Your task to perform on an android device: Search for "alienware aurora" on ebay, select the first entry, add it to the cart, then select checkout. Image 0: 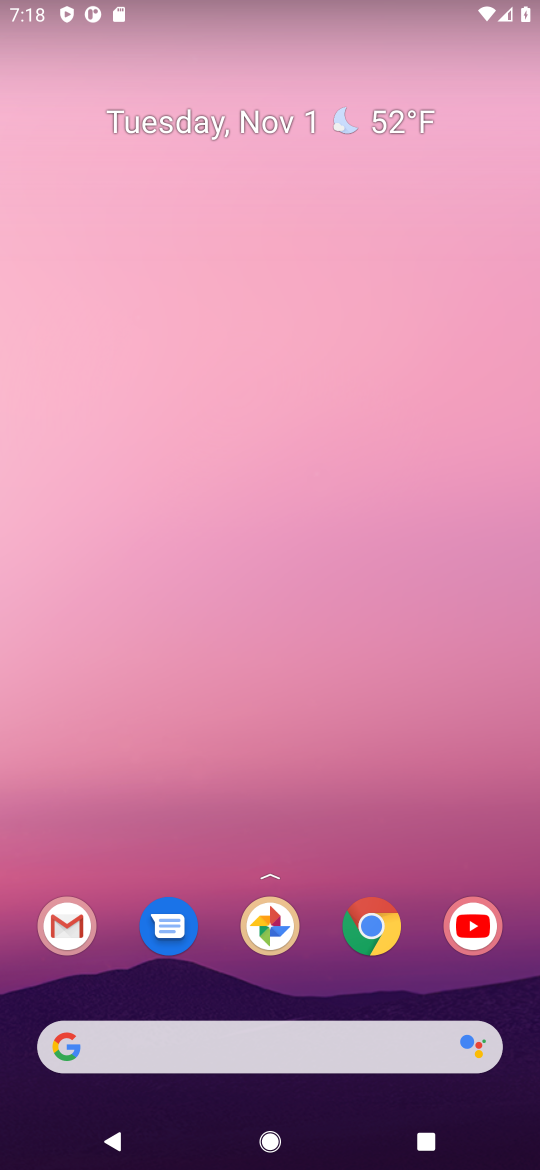
Step 0: click (374, 928)
Your task to perform on an android device: Search for "alienware aurora" on ebay, select the first entry, add it to the cart, then select checkout. Image 1: 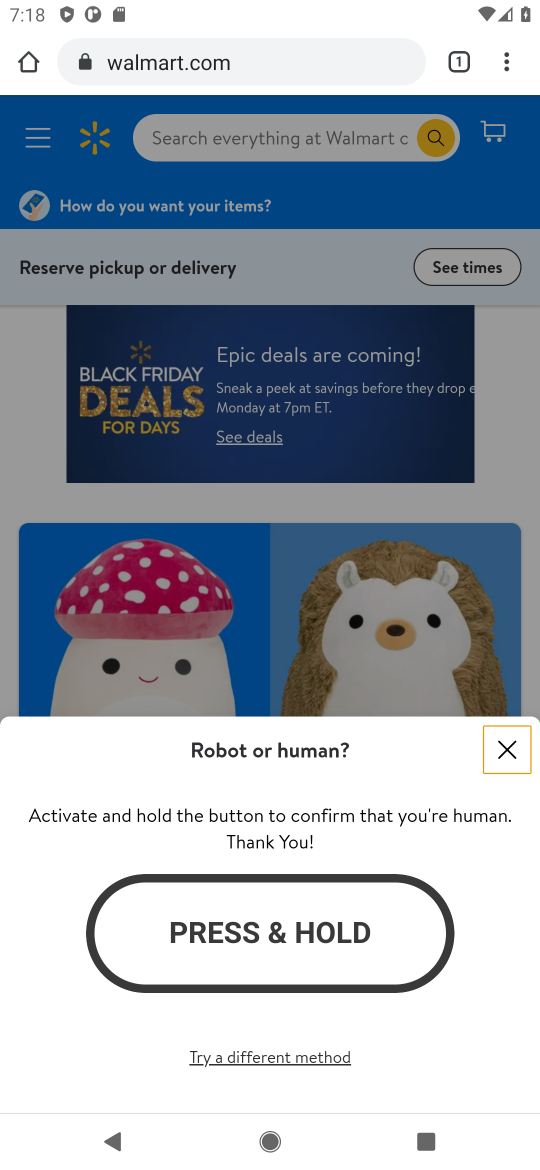
Step 1: click (198, 78)
Your task to perform on an android device: Search for "alienware aurora" on ebay, select the first entry, add it to the cart, then select checkout. Image 2: 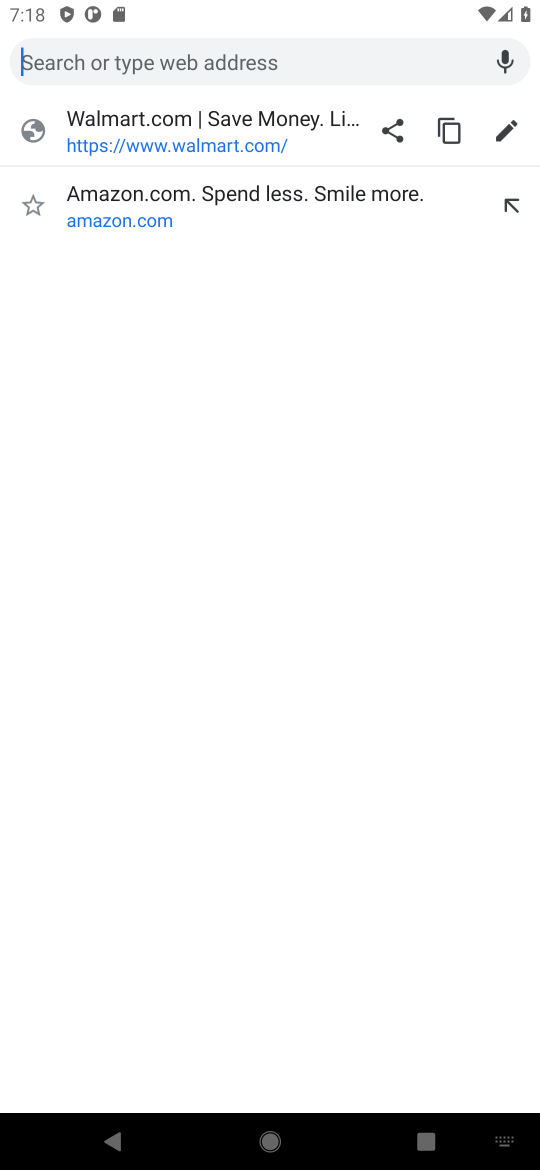
Step 2: type "ebay"
Your task to perform on an android device: Search for "alienware aurora" on ebay, select the first entry, add it to the cart, then select checkout. Image 3: 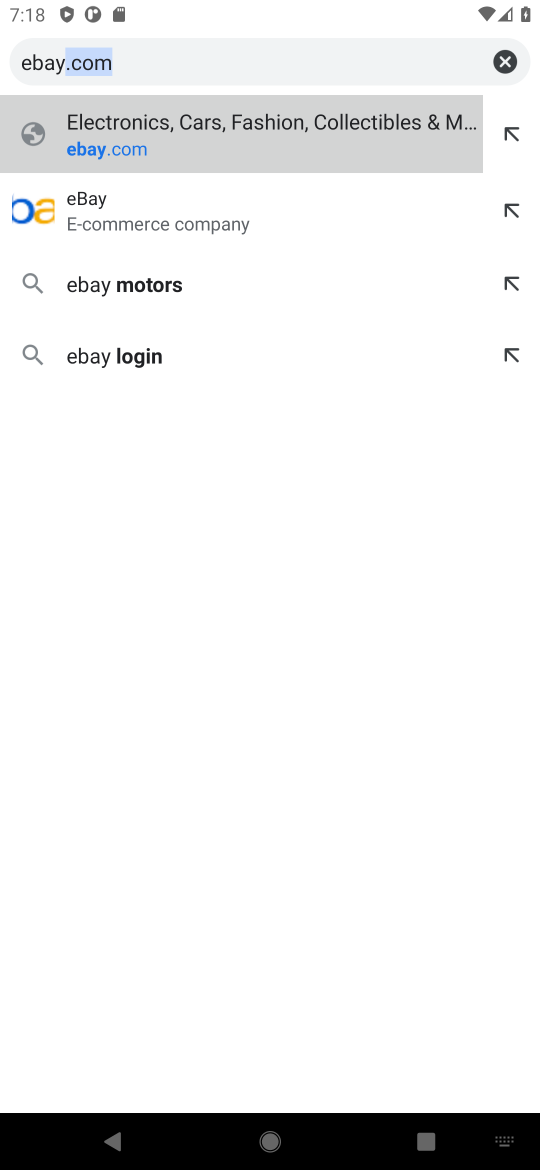
Step 3: type ""
Your task to perform on an android device: Search for "alienware aurora" on ebay, select the first entry, add it to the cart, then select checkout. Image 4: 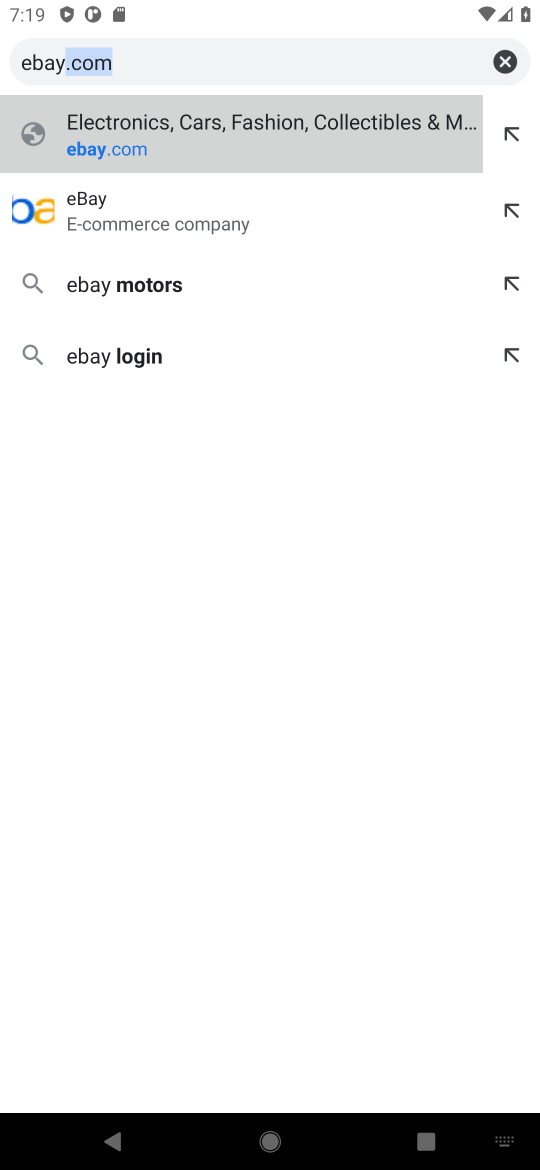
Step 4: click (137, 212)
Your task to perform on an android device: Search for "alienware aurora" on ebay, select the first entry, add it to the cart, then select checkout. Image 5: 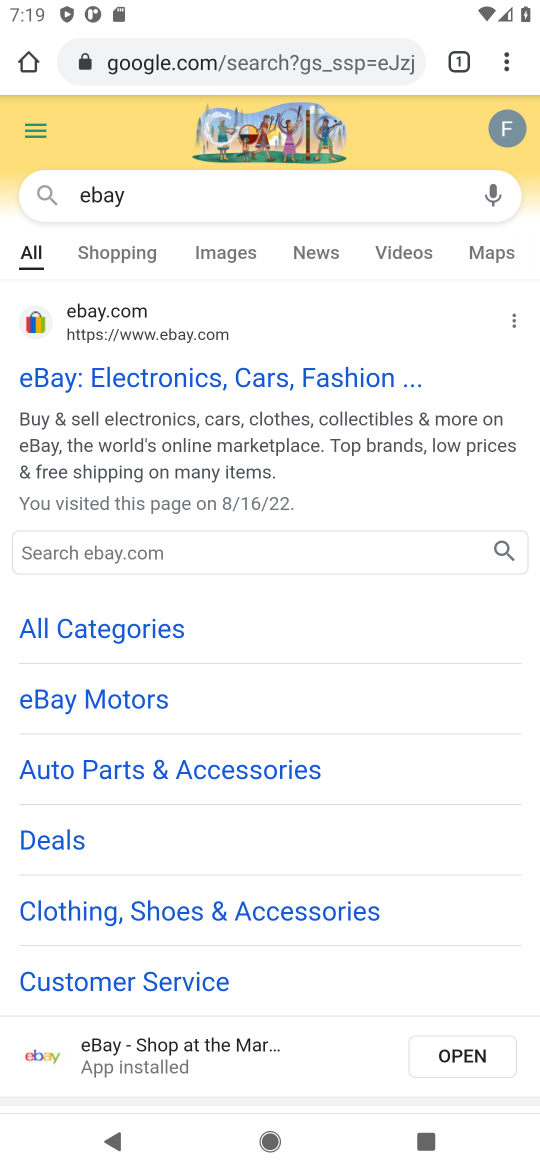
Step 5: click (186, 1044)
Your task to perform on an android device: Search for "alienware aurora" on ebay, select the first entry, add it to the cart, then select checkout. Image 6: 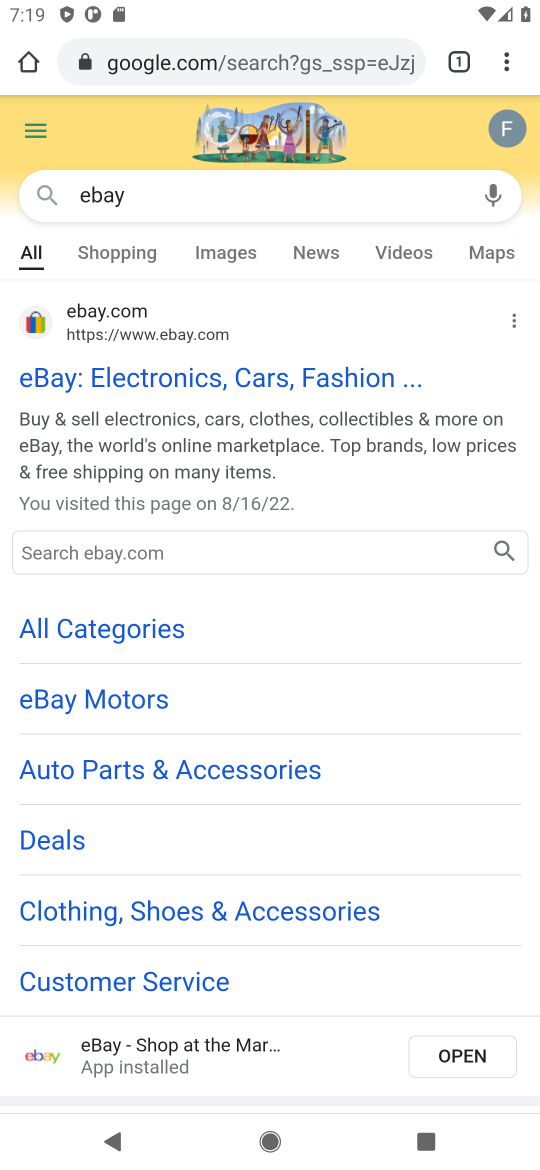
Step 6: drag from (195, 1025) to (253, 456)
Your task to perform on an android device: Search for "alienware aurora" on ebay, select the first entry, add it to the cart, then select checkout. Image 7: 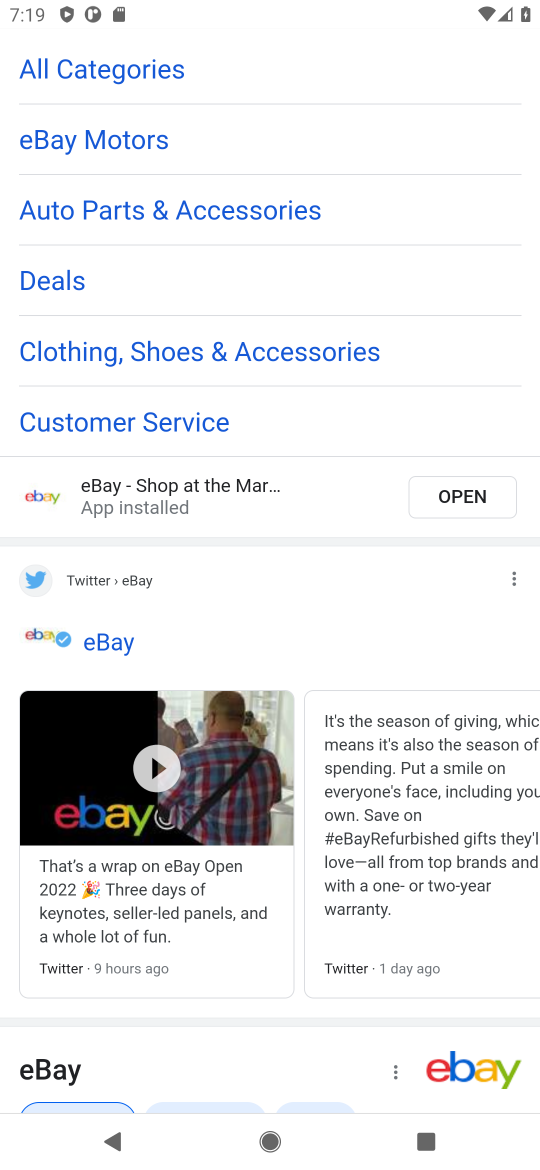
Step 7: drag from (151, 369) to (161, 975)
Your task to perform on an android device: Search for "alienware aurora" on ebay, select the first entry, add it to the cart, then select checkout. Image 8: 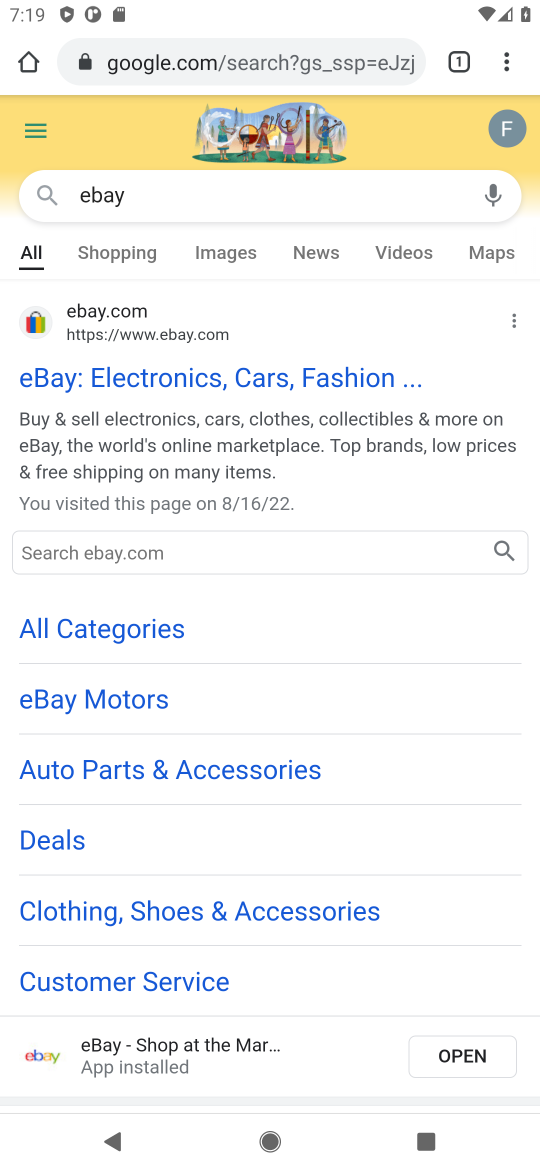
Step 8: click (133, 373)
Your task to perform on an android device: Search for "alienware aurora" on ebay, select the first entry, add it to the cart, then select checkout. Image 9: 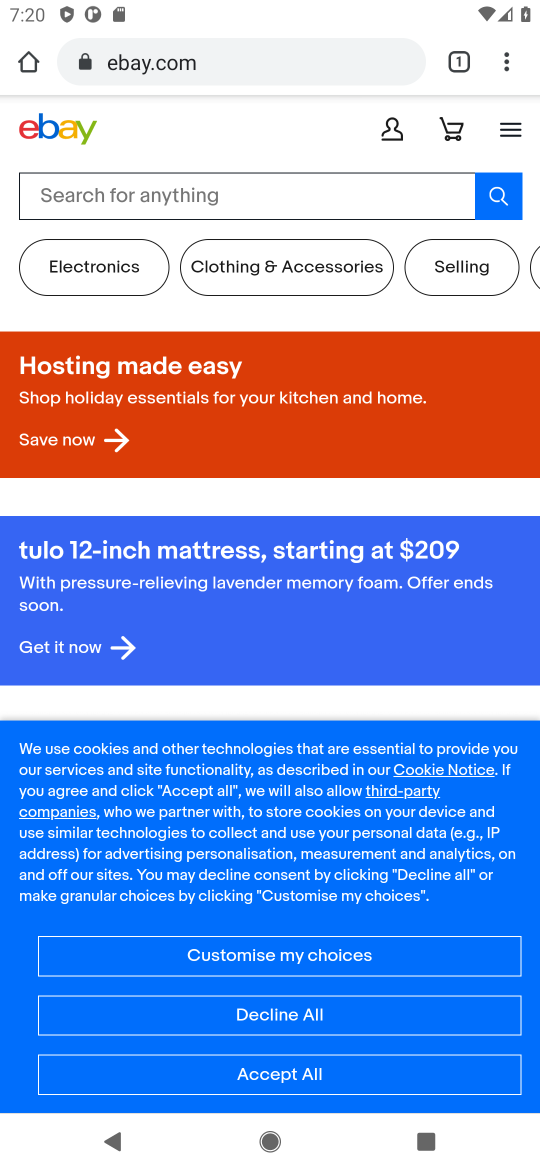
Step 9: click (106, 184)
Your task to perform on an android device: Search for "alienware aurora" on ebay, select the first entry, add it to the cart, then select checkout. Image 10: 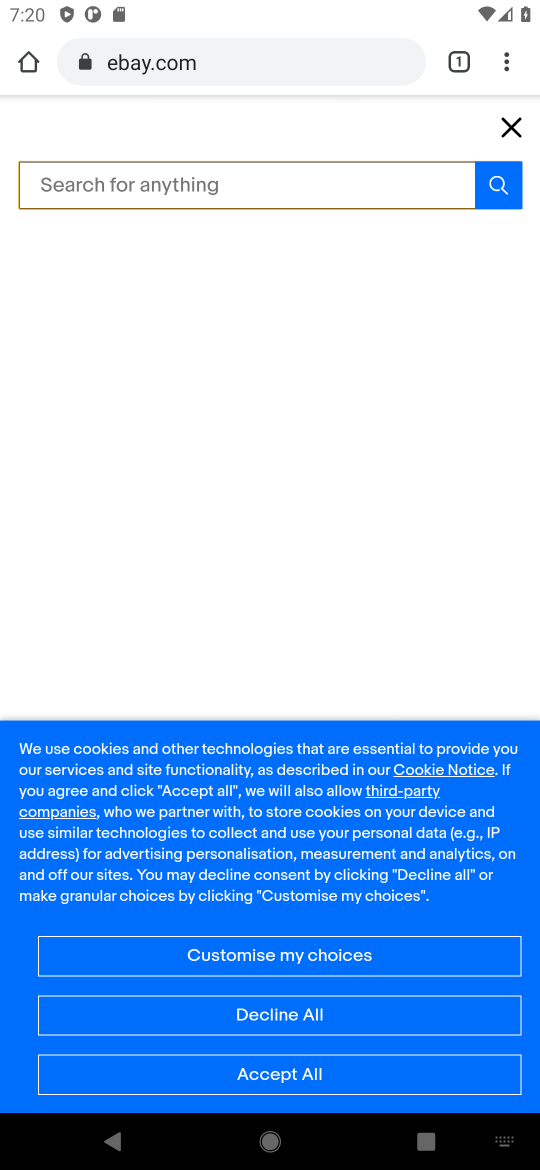
Step 10: type "alienware aurora"
Your task to perform on an android device: Search for "alienware aurora" on ebay, select the first entry, add it to the cart, then select checkout. Image 11: 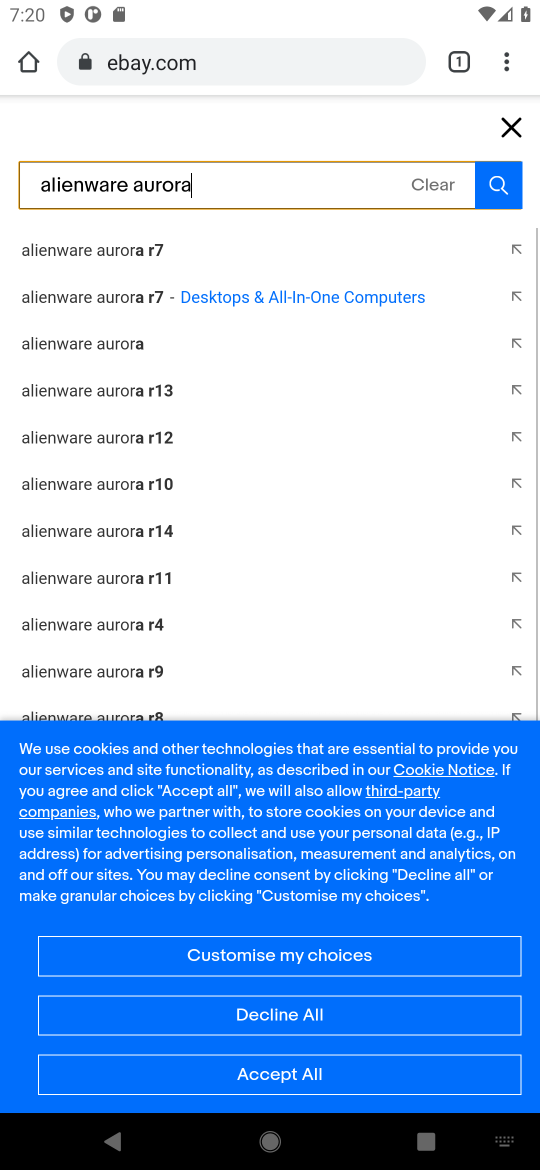
Step 11: type ""
Your task to perform on an android device: Search for "alienware aurora" on ebay, select the first entry, add it to the cart, then select checkout. Image 12: 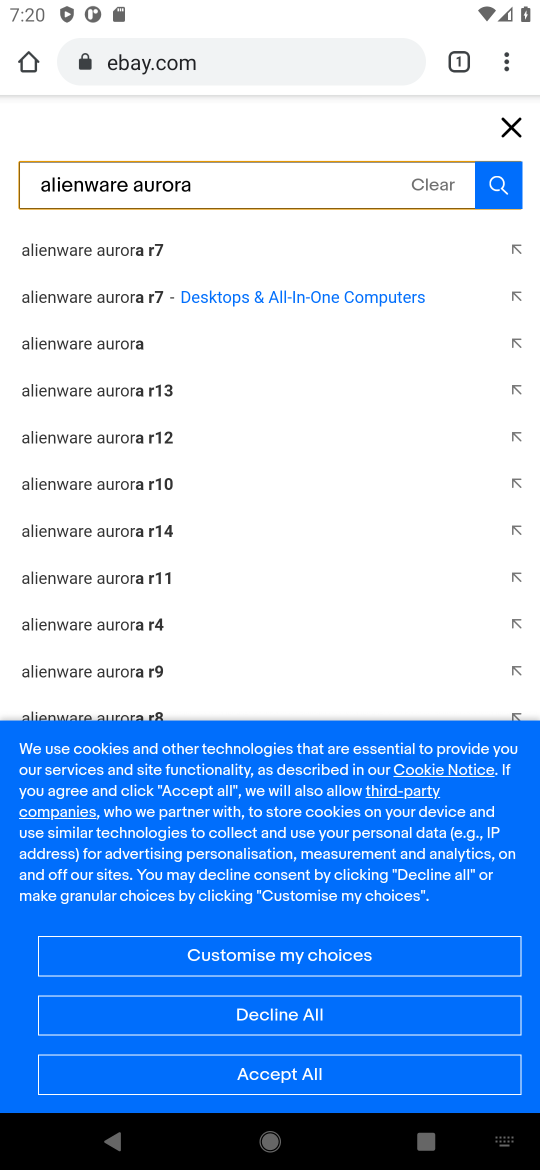
Step 12: click (114, 240)
Your task to perform on an android device: Search for "alienware aurora" on ebay, select the first entry, add it to the cart, then select checkout. Image 13: 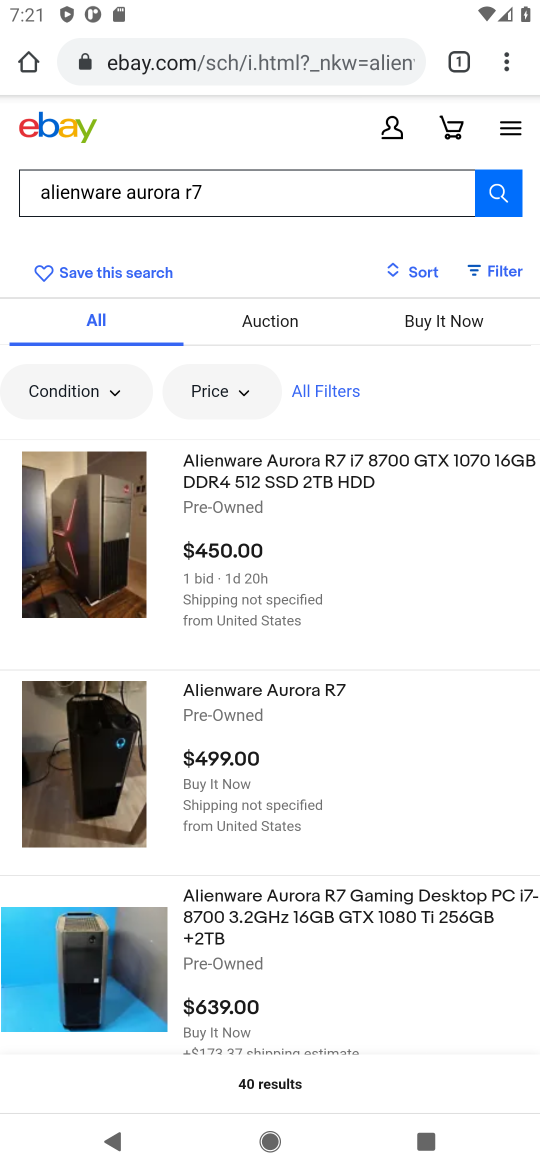
Step 13: click (78, 609)
Your task to perform on an android device: Search for "alienware aurora" on ebay, select the first entry, add it to the cart, then select checkout. Image 14: 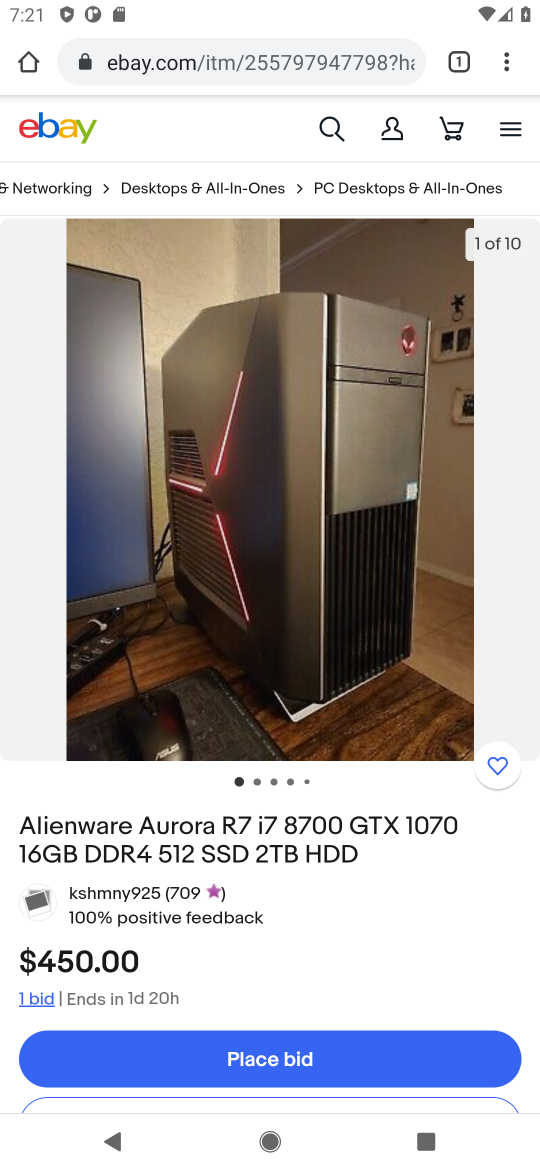
Step 14: drag from (310, 916) to (272, 323)
Your task to perform on an android device: Search for "alienware aurora" on ebay, select the first entry, add it to the cart, then select checkout. Image 15: 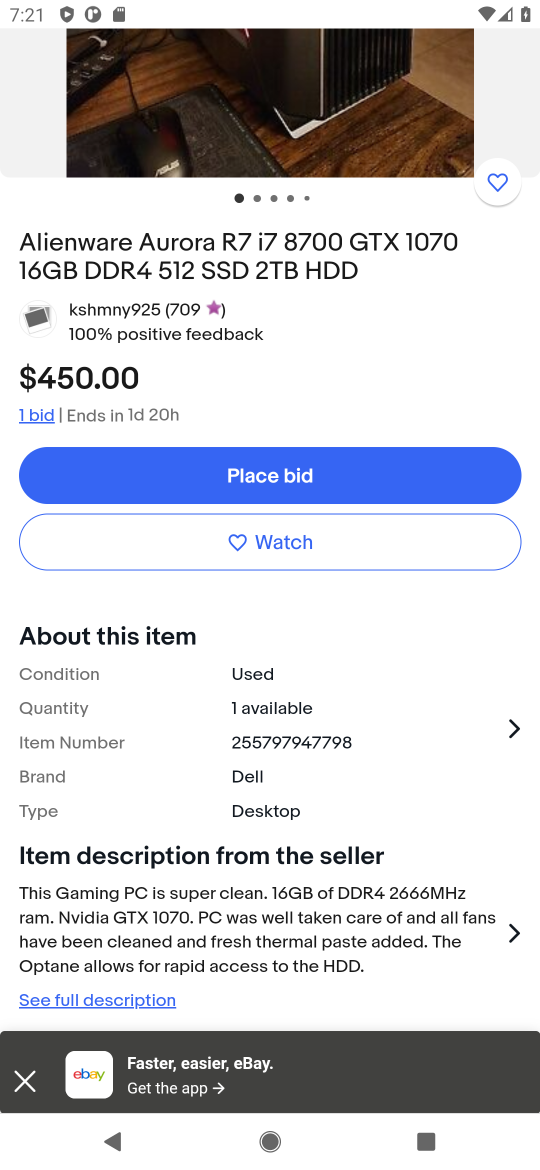
Step 15: drag from (307, 871) to (279, 98)
Your task to perform on an android device: Search for "alienware aurora" on ebay, select the first entry, add it to the cart, then select checkout. Image 16: 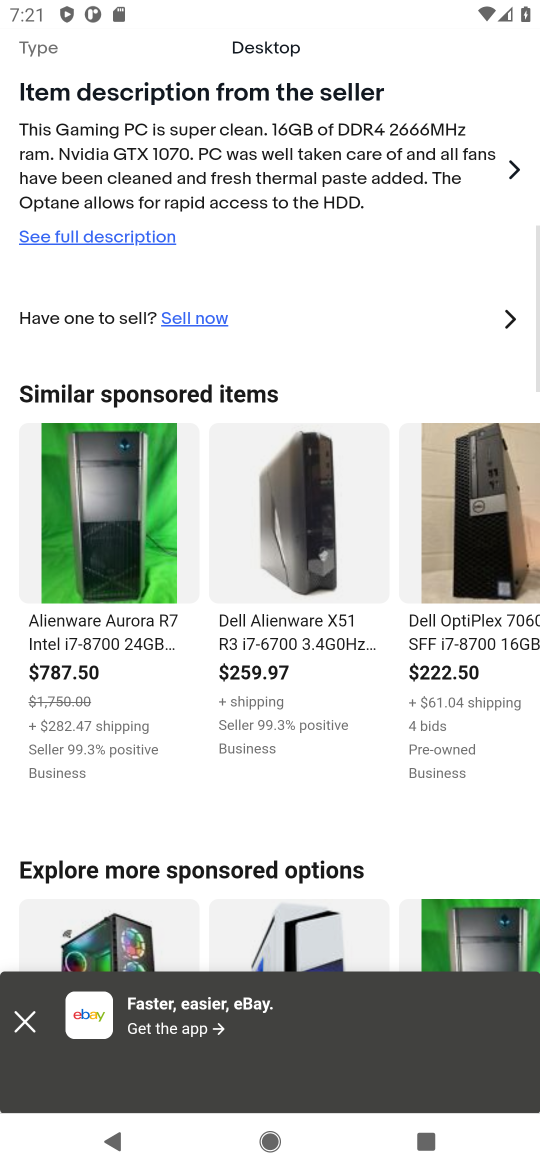
Step 16: drag from (245, 845) to (210, 444)
Your task to perform on an android device: Search for "alienware aurora" on ebay, select the first entry, add it to the cart, then select checkout. Image 17: 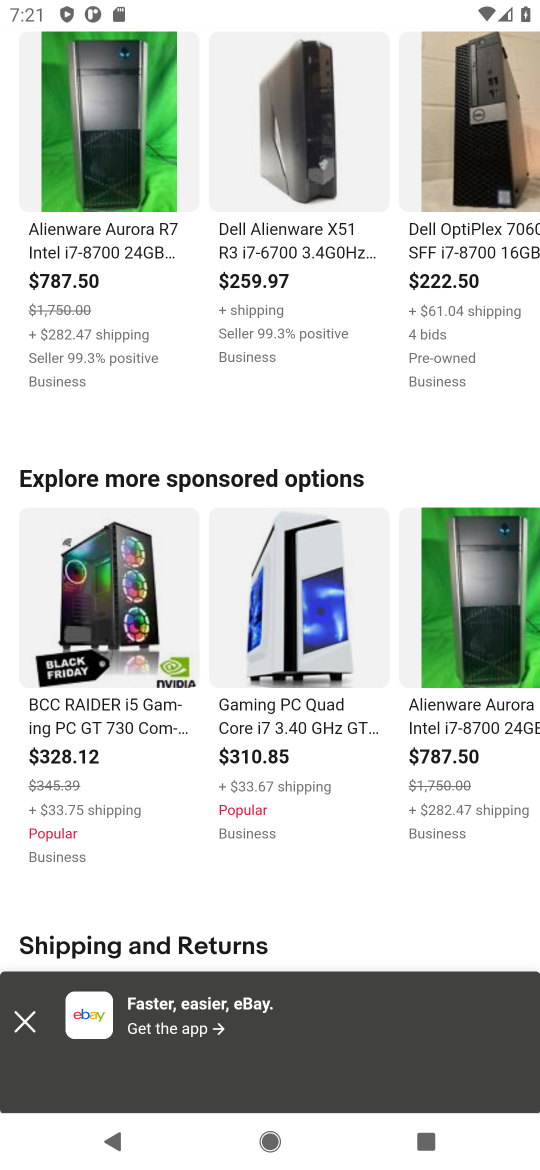
Step 17: click (13, 1028)
Your task to perform on an android device: Search for "alienware aurora" on ebay, select the first entry, add it to the cart, then select checkout. Image 18: 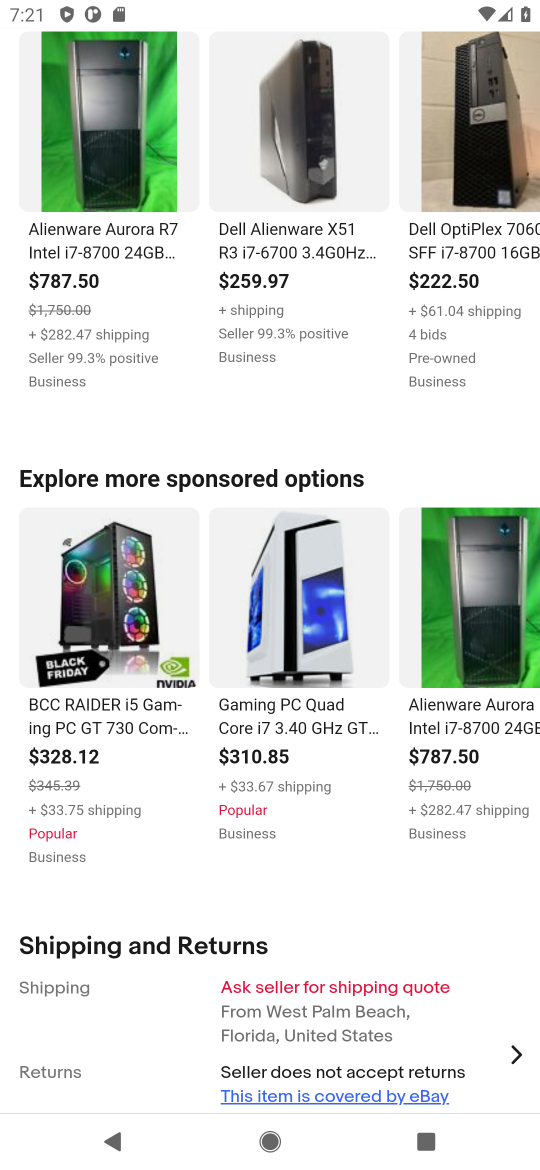
Step 18: drag from (296, 882) to (296, 526)
Your task to perform on an android device: Search for "alienware aurora" on ebay, select the first entry, add it to the cart, then select checkout. Image 19: 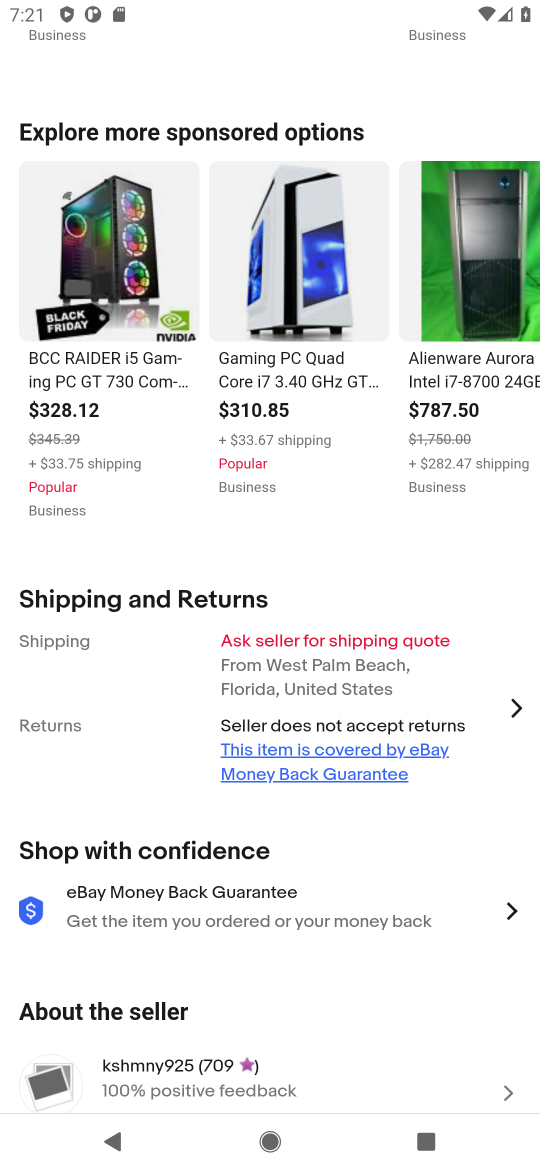
Step 19: drag from (299, 1029) to (304, 659)
Your task to perform on an android device: Search for "alienware aurora" on ebay, select the first entry, add it to the cart, then select checkout. Image 20: 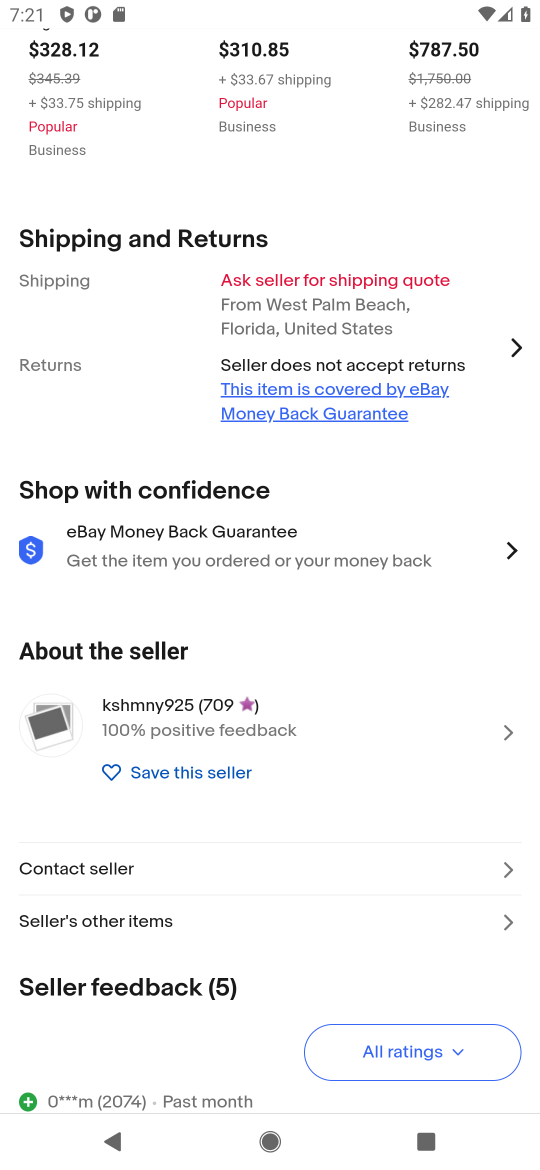
Step 20: drag from (287, 1015) to (312, 631)
Your task to perform on an android device: Search for "alienware aurora" on ebay, select the first entry, add it to the cart, then select checkout. Image 21: 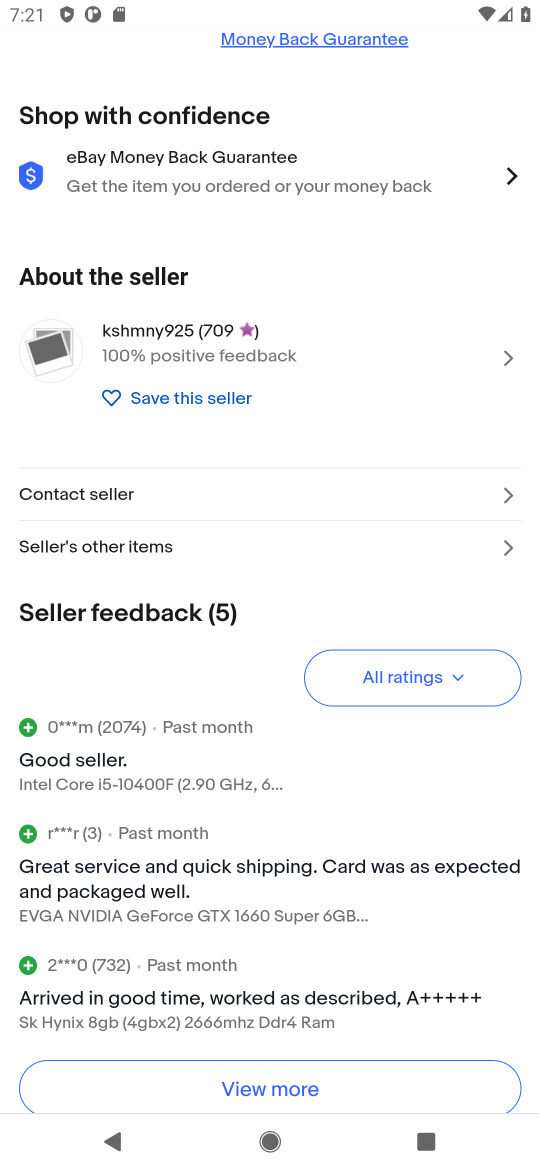
Step 21: drag from (311, 1012) to (331, 304)
Your task to perform on an android device: Search for "alienware aurora" on ebay, select the first entry, add it to the cart, then select checkout. Image 22: 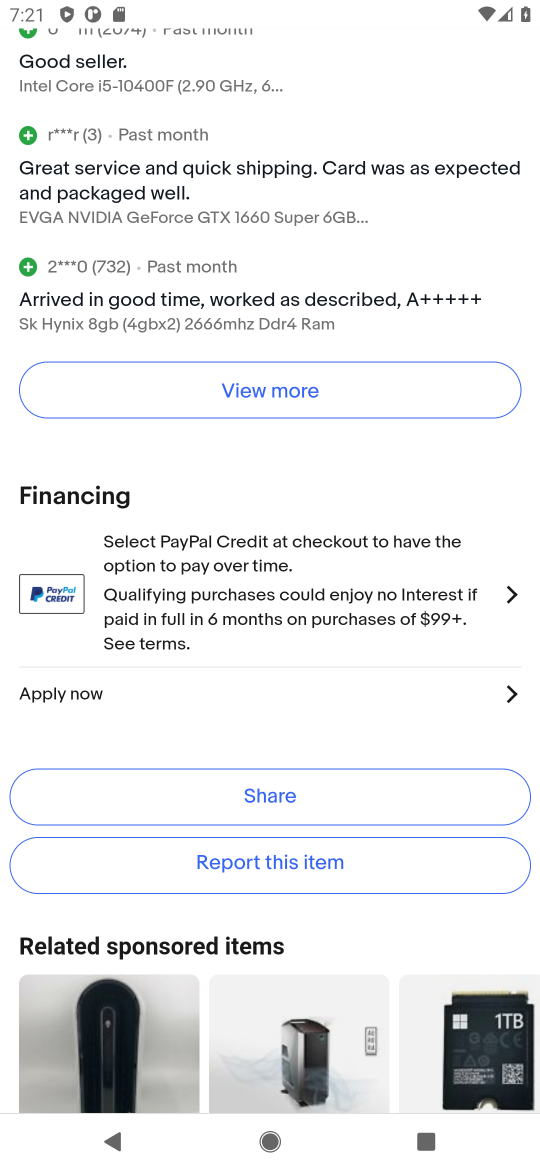
Step 22: click (293, 388)
Your task to perform on an android device: Search for "alienware aurora" on ebay, select the first entry, add it to the cart, then select checkout. Image 23: 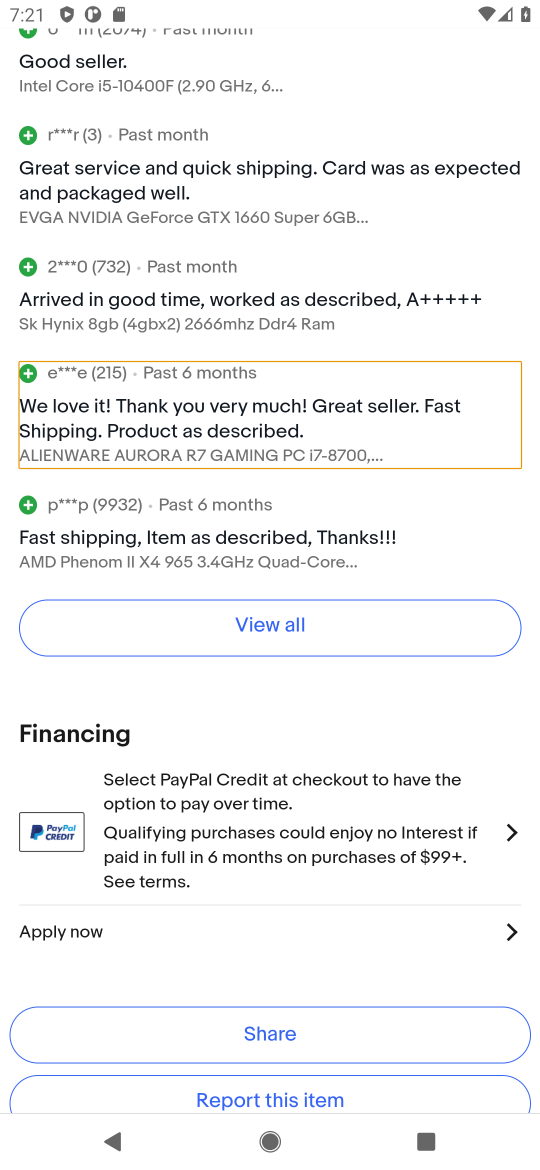
Step 23: drag from (309, 856) to (320, 384)
Your task to perform on an android device: Search for "alienware aurora" on ebay, select the first entry, add it to the cart, then select checkout. Image 24: 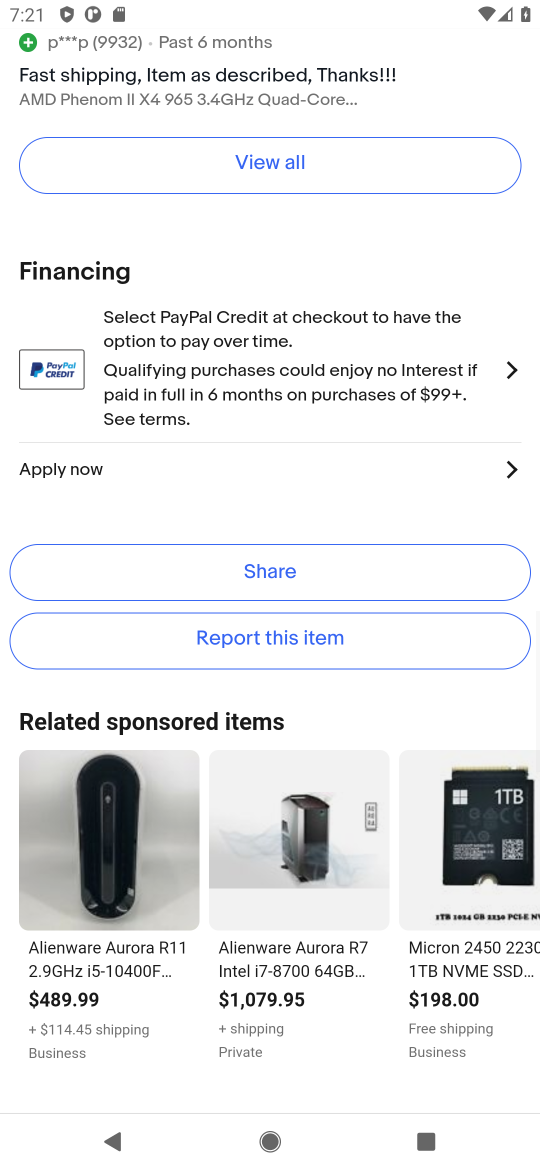
Step 24: drag from (131, 1083) to (271, 930)
Your task to perform on an android device: Search for "alienware aurora" on ebay, select the first entry, add it to the cart, then select checkout. Image 25: 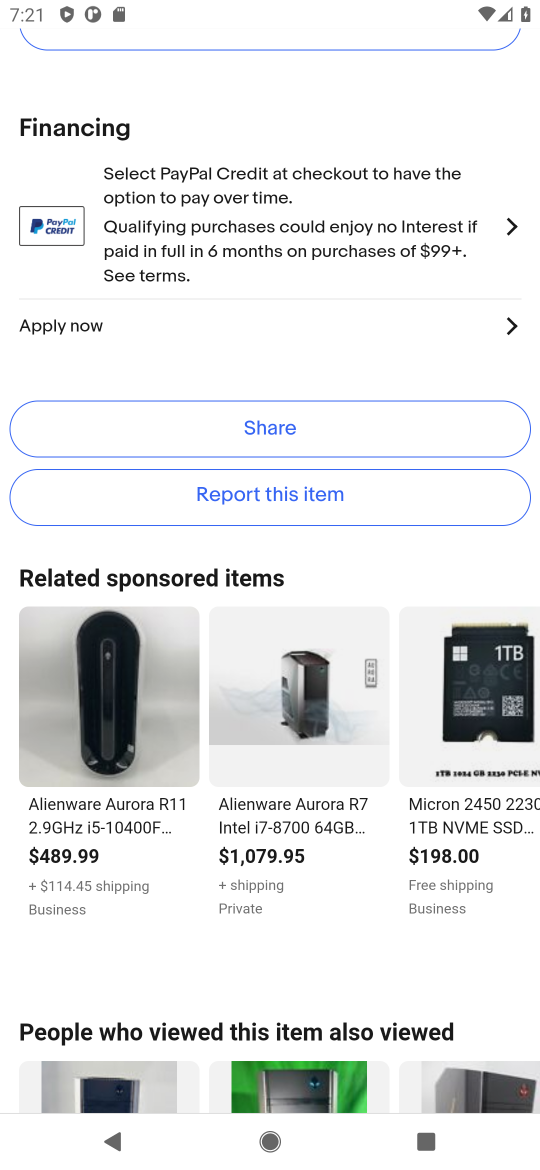
Step 25: drag from (387, 361) to (371, 1030)
Your task to perform on an android device: Search for "alienware aurora" on ebay, select the first entry, add it to the cart, then select checkout. Image 26: 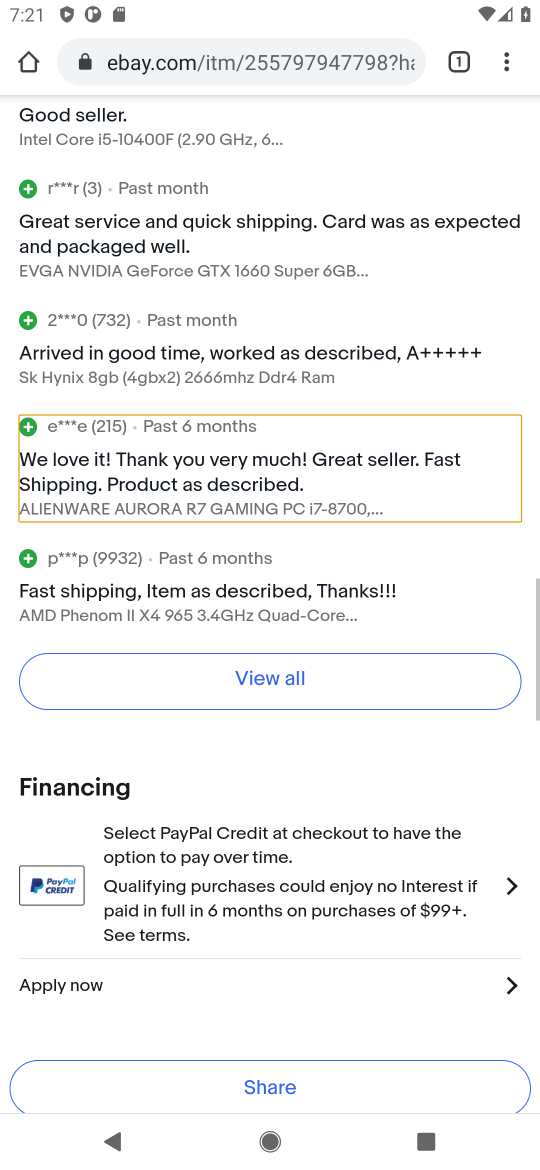
Step 26: drag from (238, 377) to (207, 970)
Your task to perform on an android device: Search for "alienware aurora" on ebay, select the first entry, add it to the cart, then select checkout. Image 27: 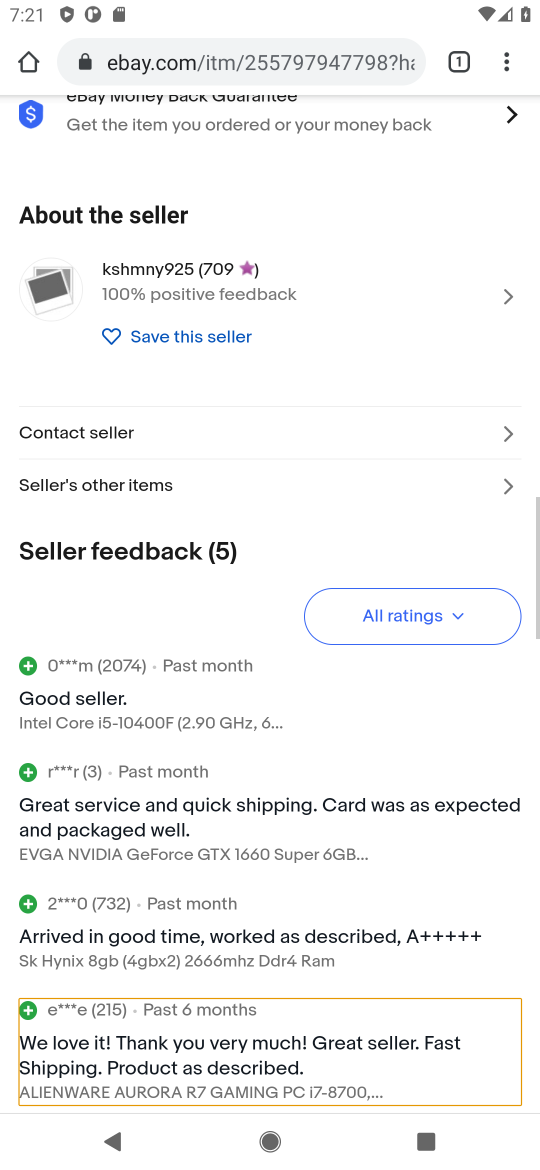
Step 27: drag from (277, 344) to (279, 846)
Your task to perform on an android device: Search for "alienware aurora" on ebay, select the first entry, add it to the cart, then select checkout. Image 28: 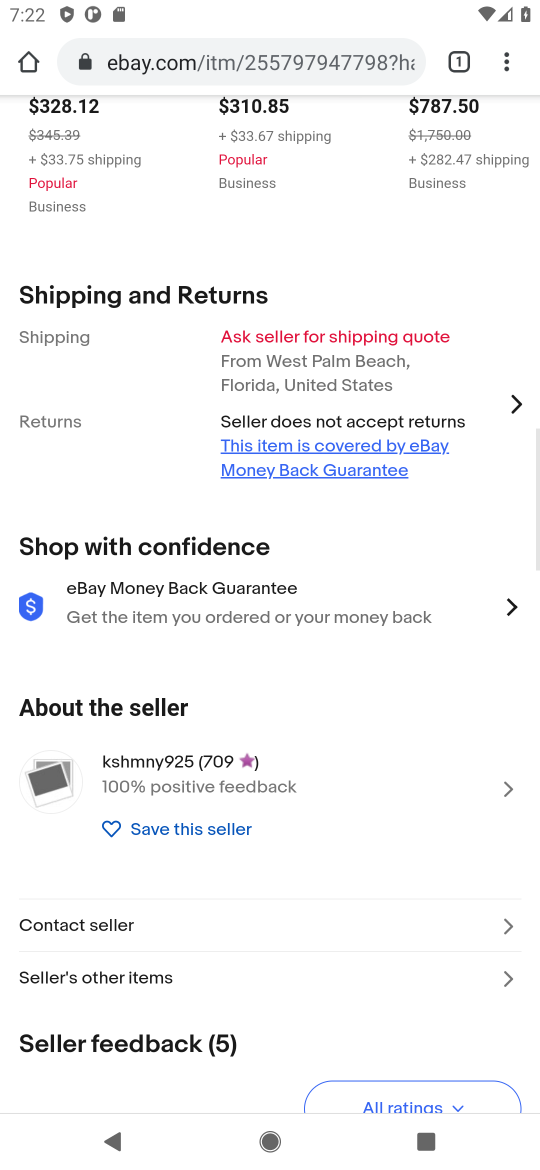
Step 28: drag from (279, 452) to (246, 894)
Your task to perform on an android device: Search for "alienware aurora" on ebay, select the first entry, add it to the cart, then select checkout. Image 29: 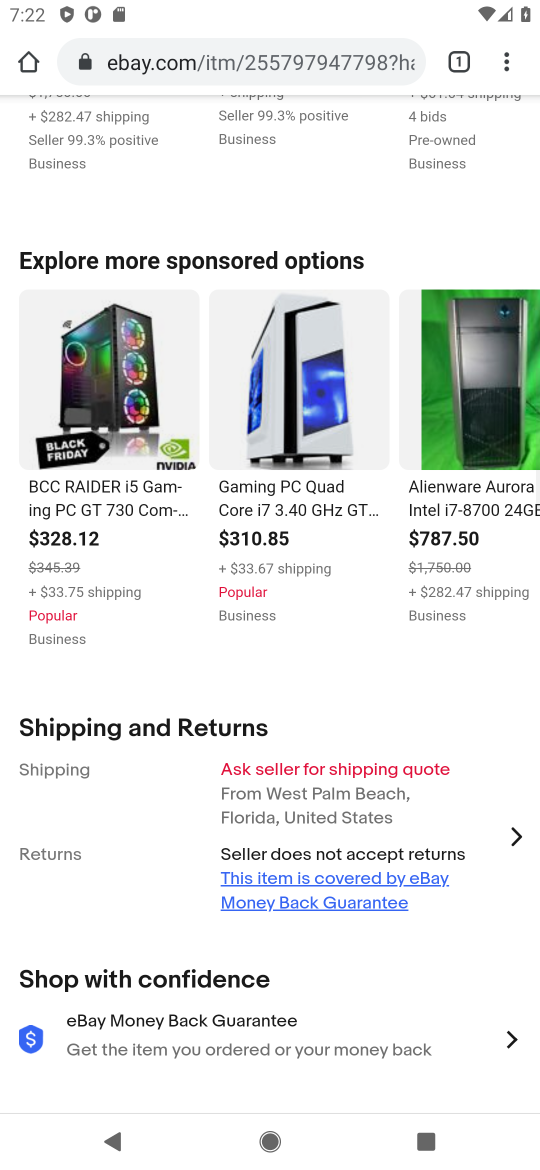
Step 29: drag from (255, 413) to (238, 775)
Your task to perform on an android device: Search for "alienware aurora" on ebay, select the first entry, add it to the cart, then select checkout. Image 30: 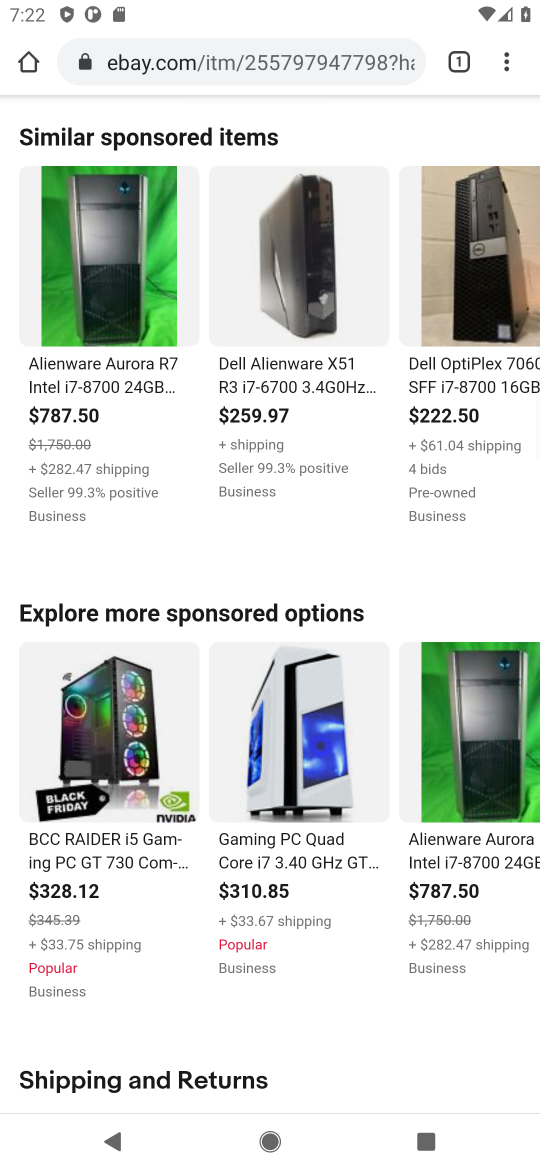
Step 30: drag from (248, 310) to (243, 716)
Your task to perform on an android device: Search for "alienware aurora" on ebay, select the first entry, add it to the cart, then select checkout. Image 31: 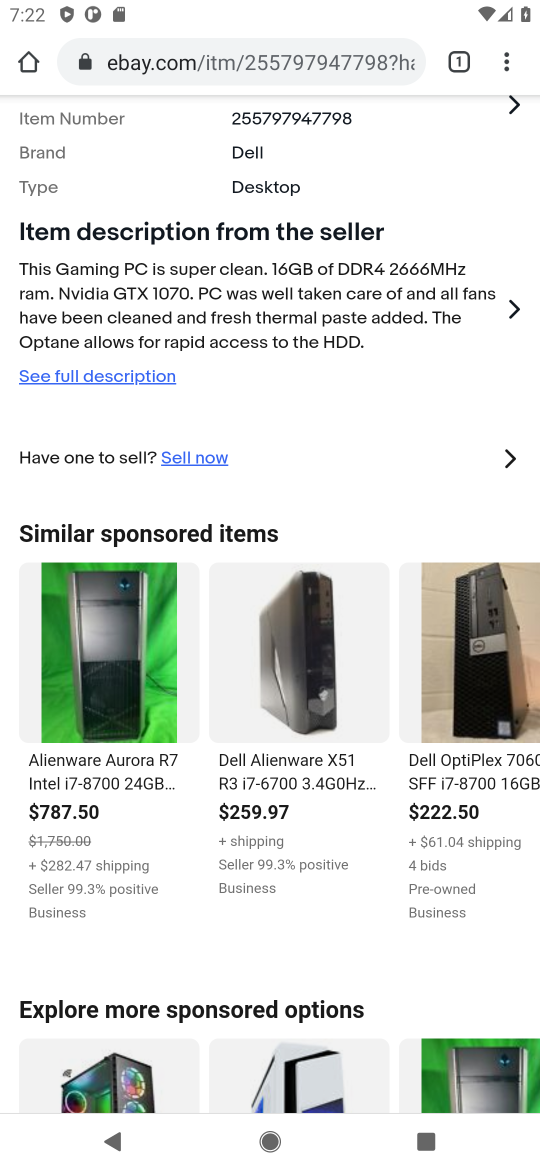
Step 31: drag from (313, 381) to (313, 638)
Your task to perform on an android device: Search for "alienware aurora" on ebay, select the first entry, add it to the cart, then select checkout. Image 32: 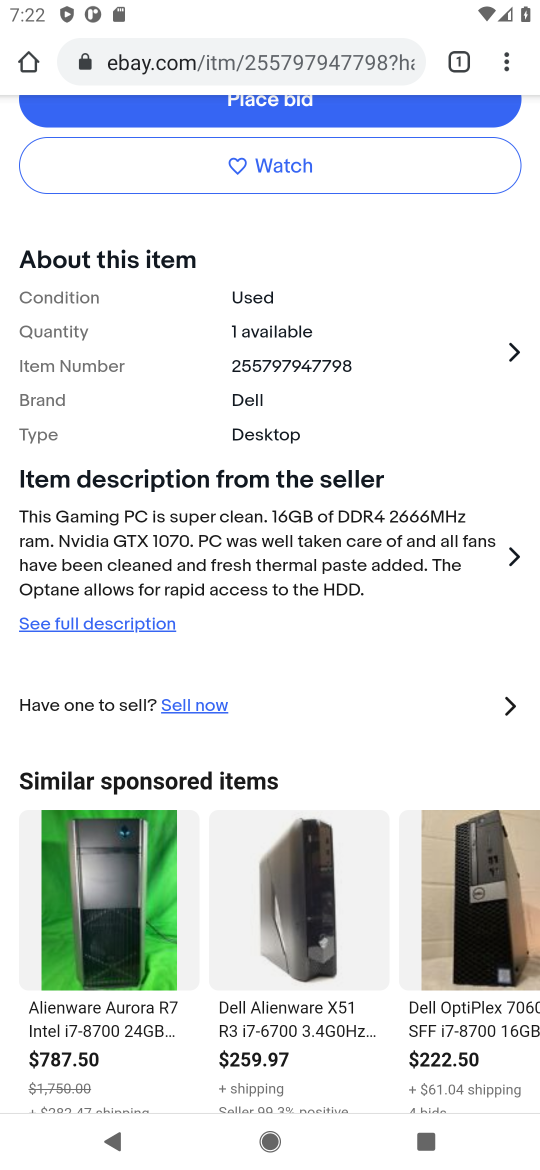
Step 32: drag from (384, 266) to (389, 502)
Your task to perform on an android device: Search for "alienware aurora" on ebay, select the first entry, add it to the cart, then select checkout. Image 33: 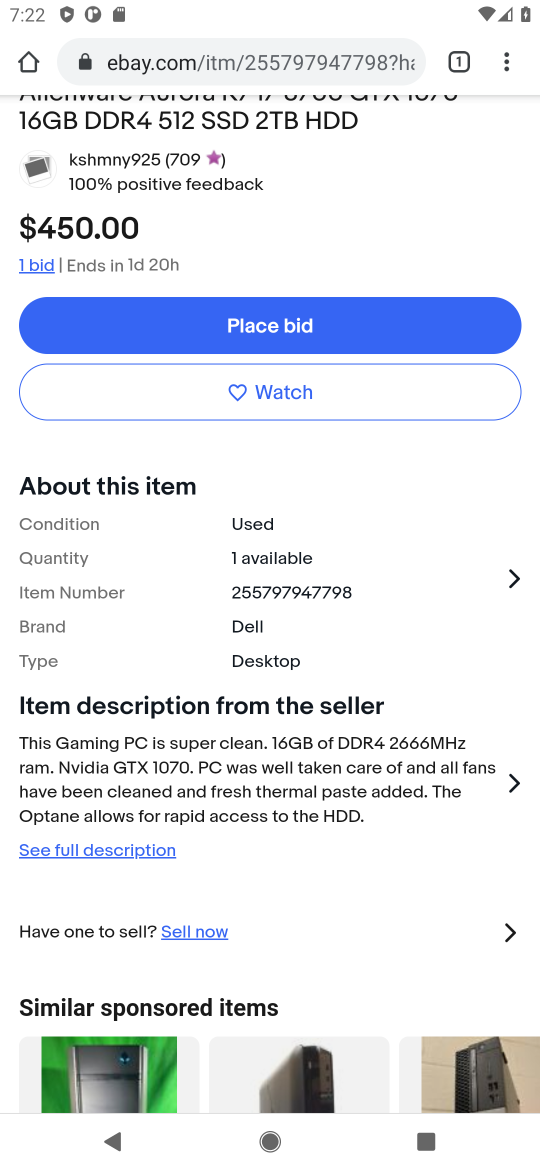
Step 33: click (246, 327)
Your task to perform on an android device: Search for "alienware aurora" on ebay, select the first entry, add it to the cart, then select checkout. Image 34: 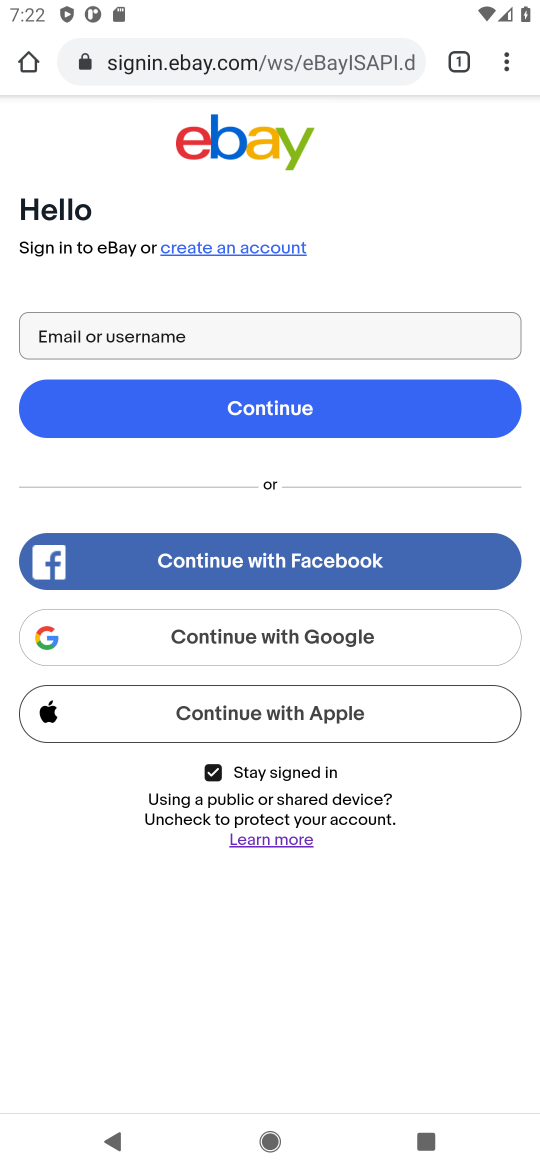
Step 34: press back button
Your task to perform on an android device: Search for "alienware aurora" on ebay, select the first entry, add it to the cart, then select checkout. Image 35: 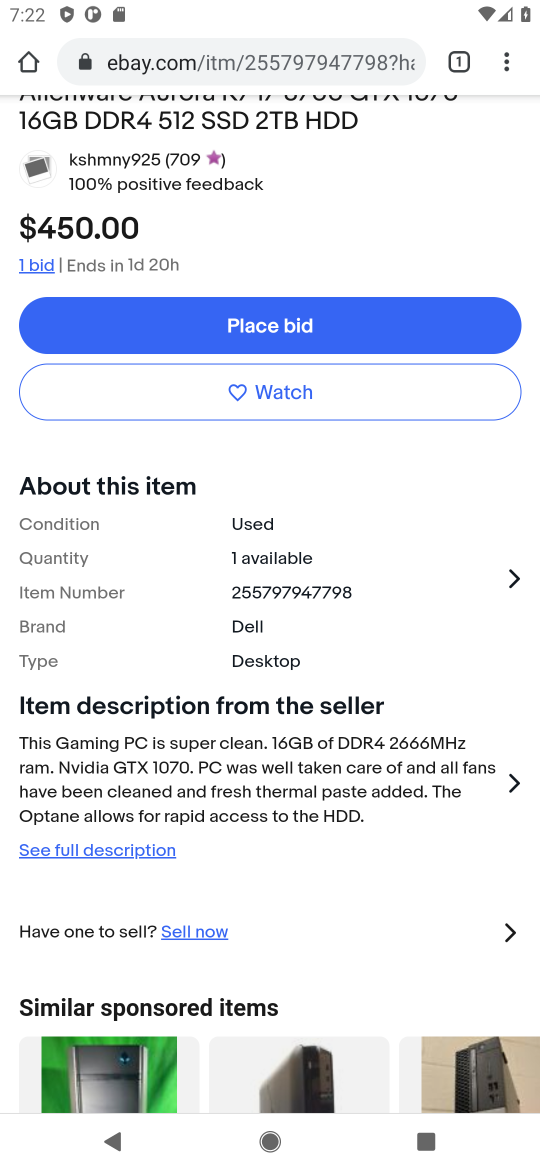
Step 35: drag from (277, 221) to (241, 785)
Your task to perform on an android device: Search for "alienware aurora" on ebay, select the first entry, add it to the cart, then select checkout. Image 36: 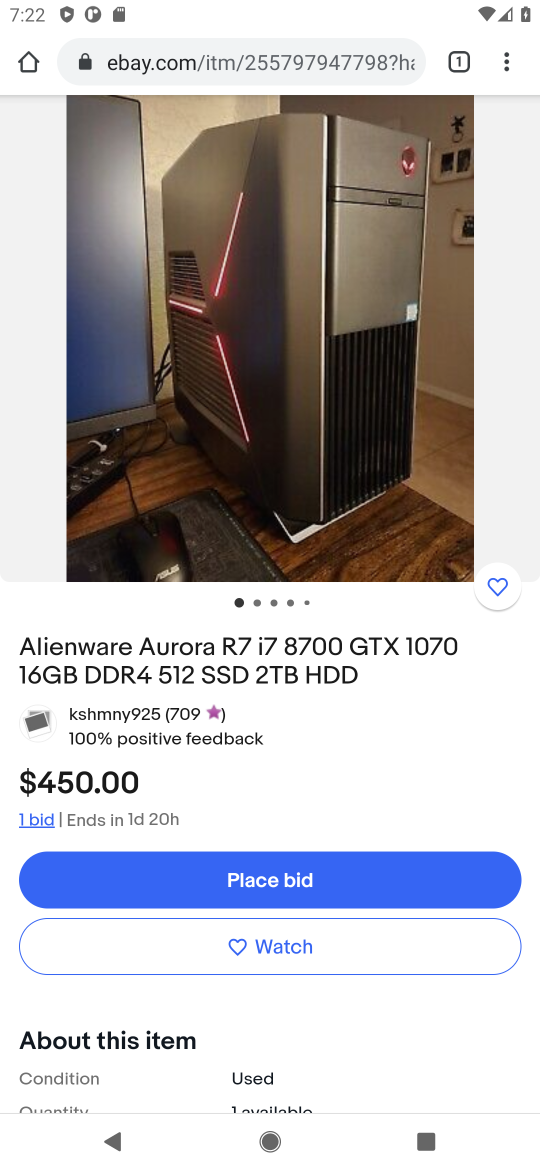
Step 36: press back button
Your task to perform on an android device: Search for "alienware aurora" on ebay, select the first entry, add it to the cart, then select checkout. Image 37: 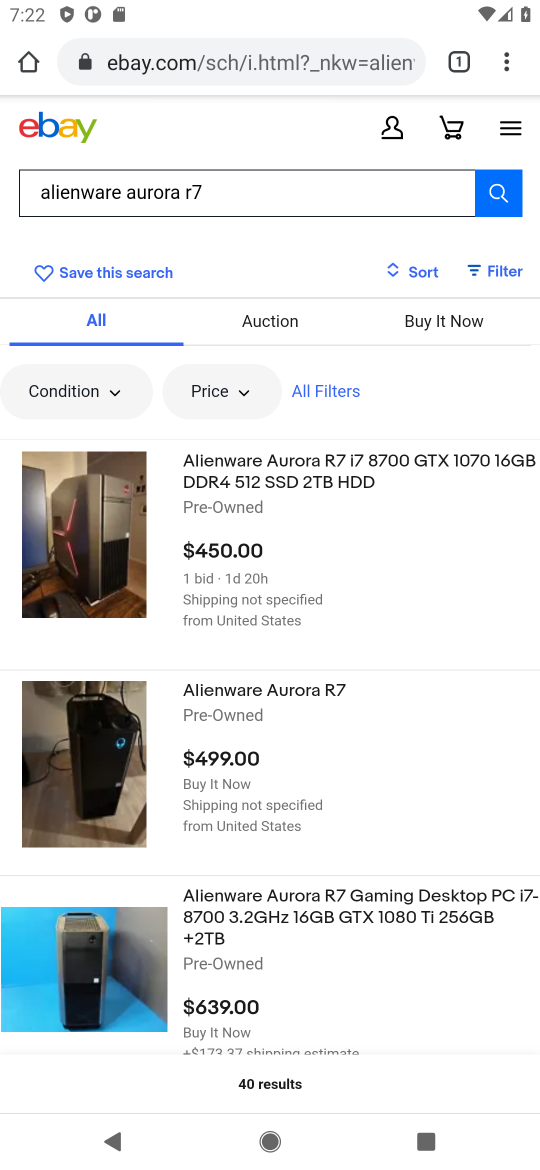
Step 37: drag from (400, 767) to (405, 613)
Your task to perform on an android device: Search for "alienware aurora" on ebay, select the first entry, add it to the cart, then select checkout. Image 38: 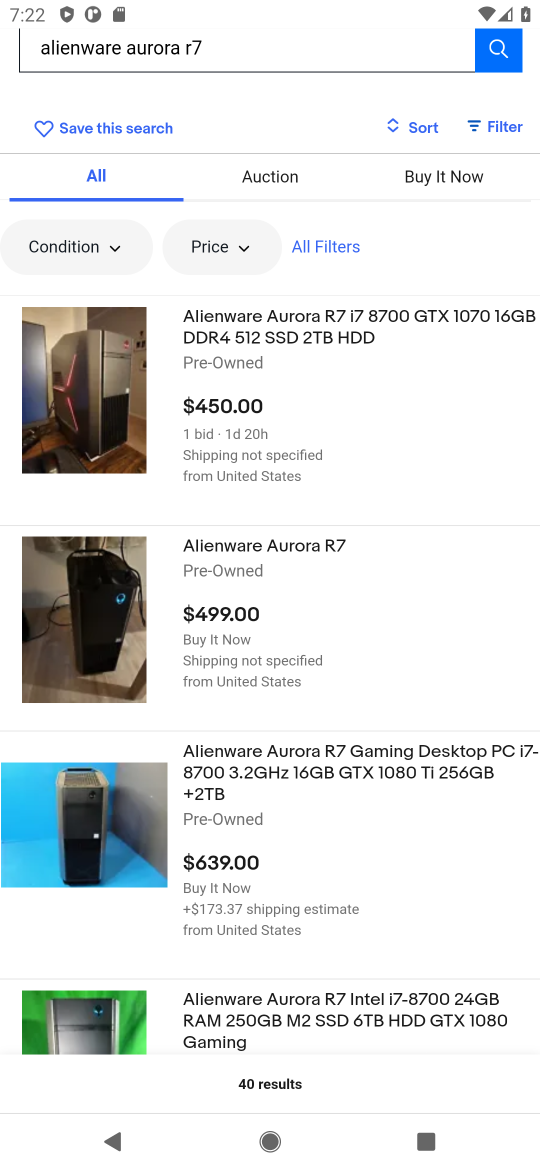
Step 38: click (275, 771)
Your task to perform on an android device: Search for "alienware aurora" on ebay, select the first entry, add it to the cart, then select checkout. Image 39: 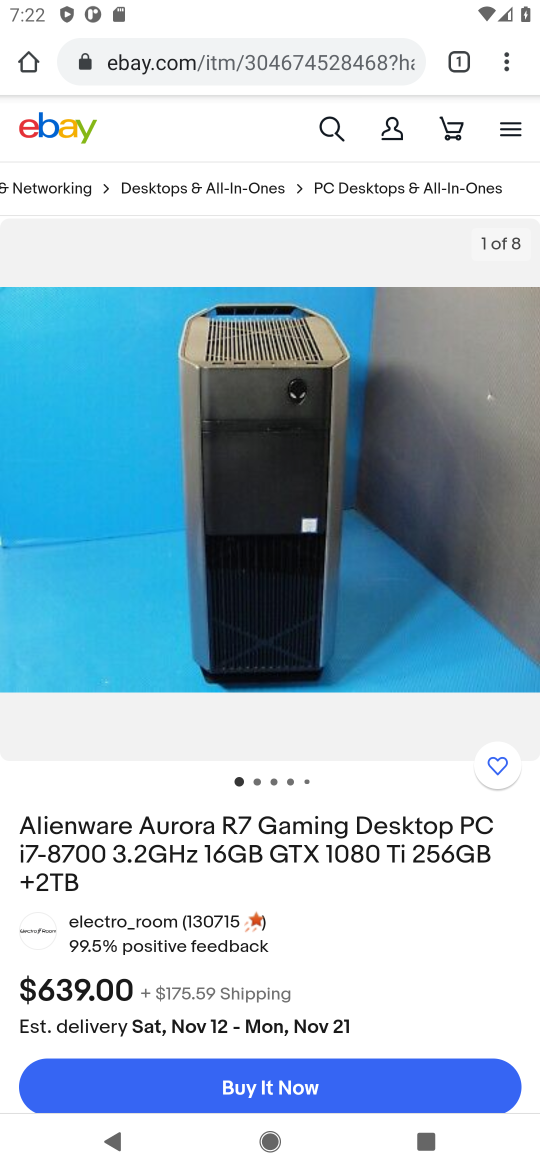
Step 39: click (282, 1099)
Your task to perform on an android device: Search for "alienware aurora" on ebay, select the first entry, add it to the cart, then select checkout. Image 40: 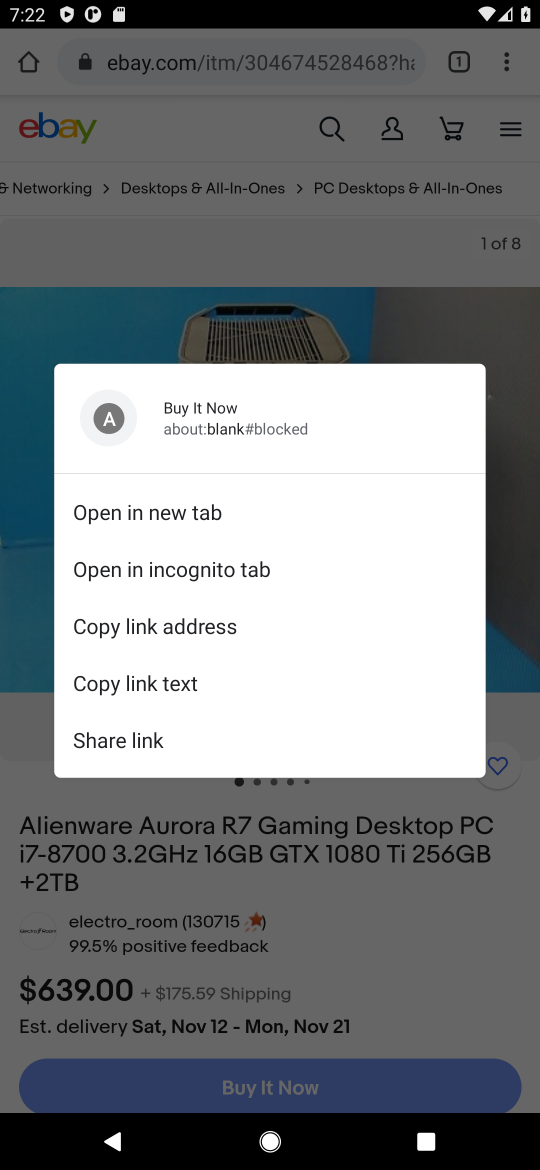
Step 40: click (449, 960)
Your task to perform on an android device: Search for "alienware aurora" on ebay, select the first entry, add it to the cart, then select checkout. Image 41: 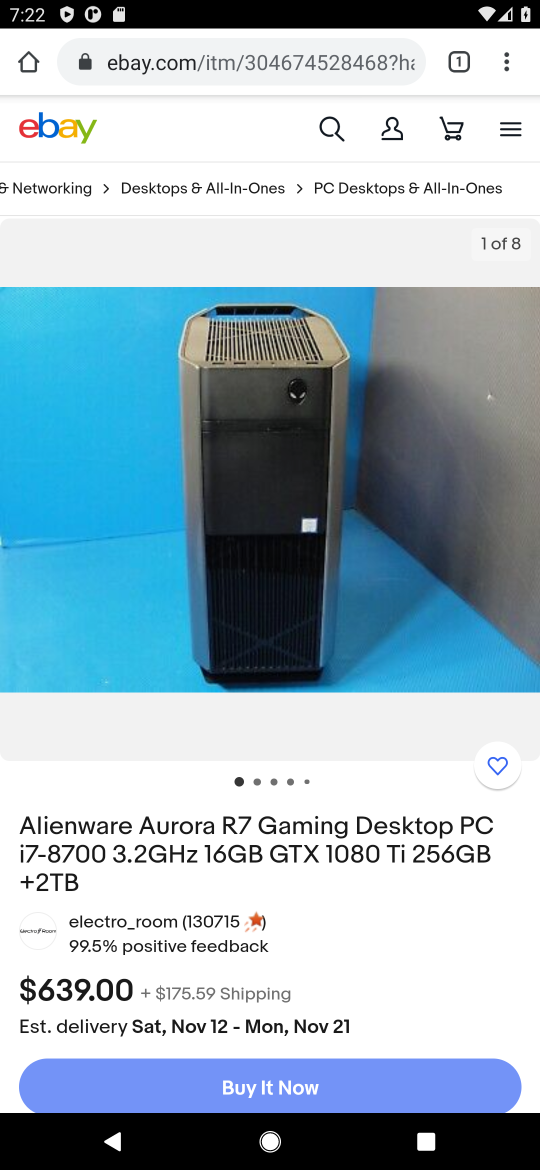
Step 41: drag from (449, 963) to (406, 400)
Your task to perform on an android device: Search for "alienware aurora" on ebay, select the first entry, add it to the cart, then select checkout. Image 42: 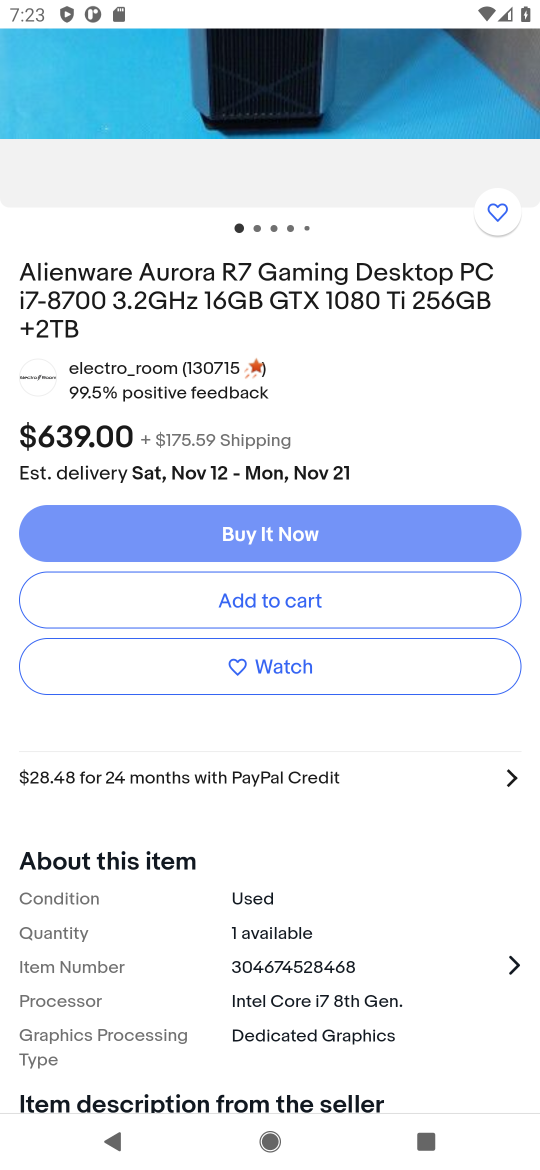
Step 42: click (280, 605)
Your task to perform on an android device: Search for "alienware aurora" on ebay, select the first entry, add it to the cart, then select checkout. Image 43: 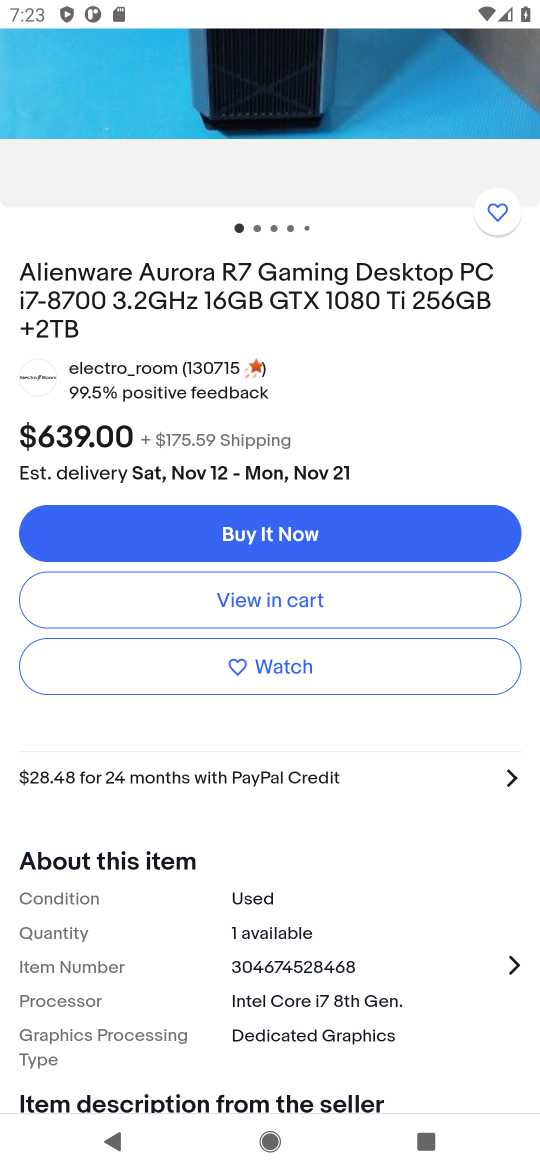
Step 43: click (255, 607)
Your task to perform on an android device: Search for "alienware aurora" on ebay, select the first entry, add it to the cart, then select checkout. Image 44: 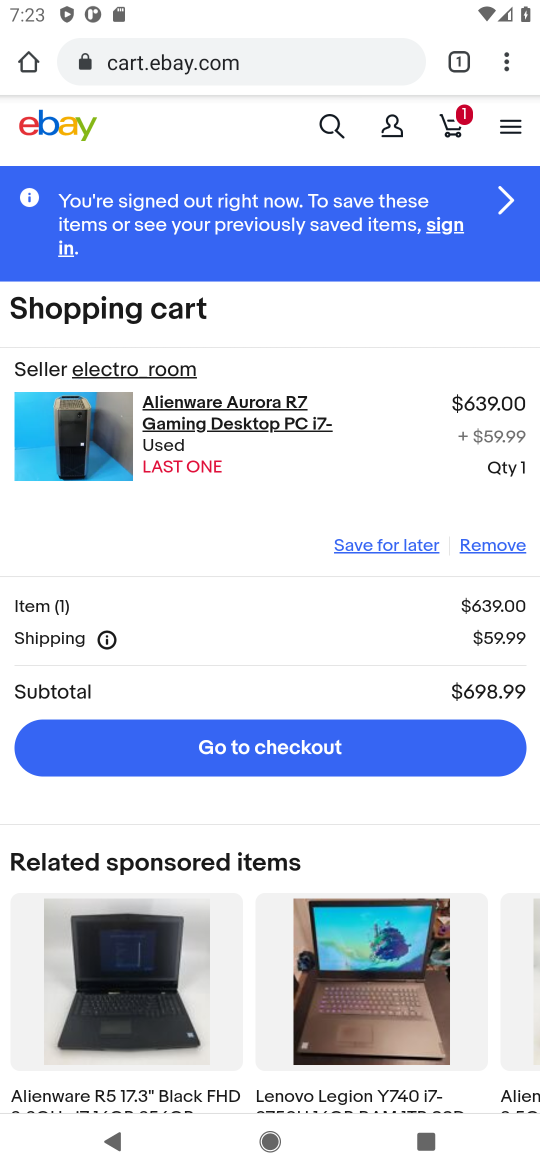
Step 44: click (274, 756)
Your task to perform on an android device: Search for "alienware aurora" on ebay, select the first entry, add it to the cart, then select checkout. Image 45: 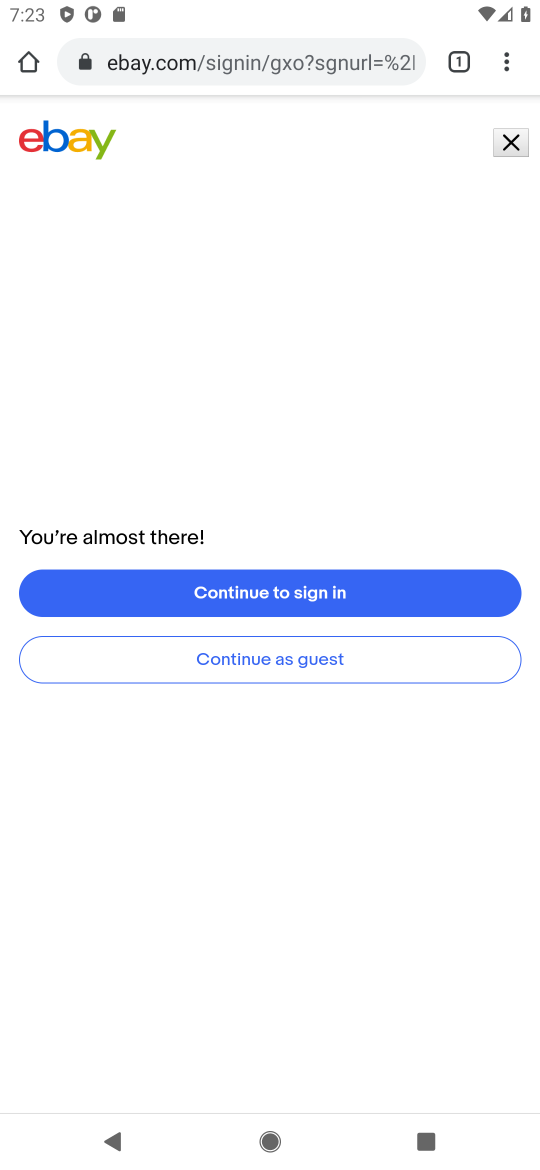
Step 45: task complete